Your task to perform on an android device: find snoozed emails in the gmail app Image 0: 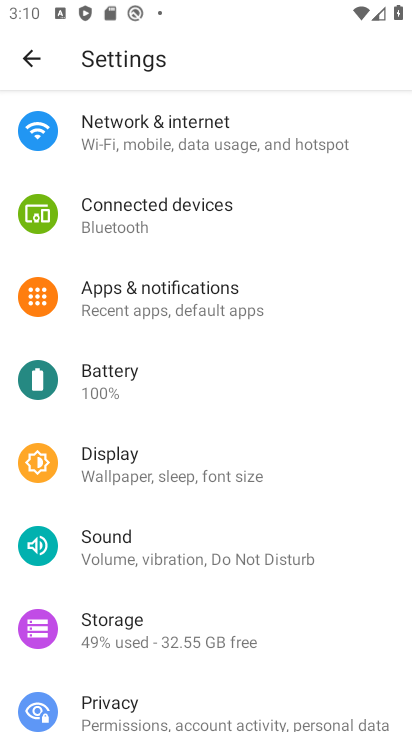
Step 0: press home button
Your task to perform on an android device: find snoozed emails in the gmail app Image 1: 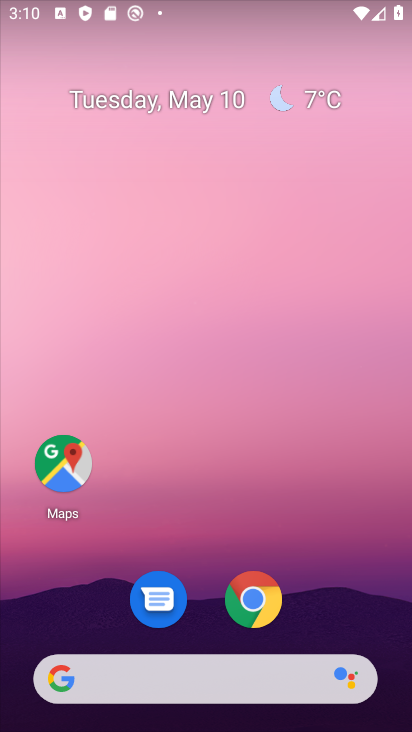
Step 1: drag from (244, 719) to (253, 239)
Your task to perform on an android device: find snoozed emails in the gmail app Image 2: 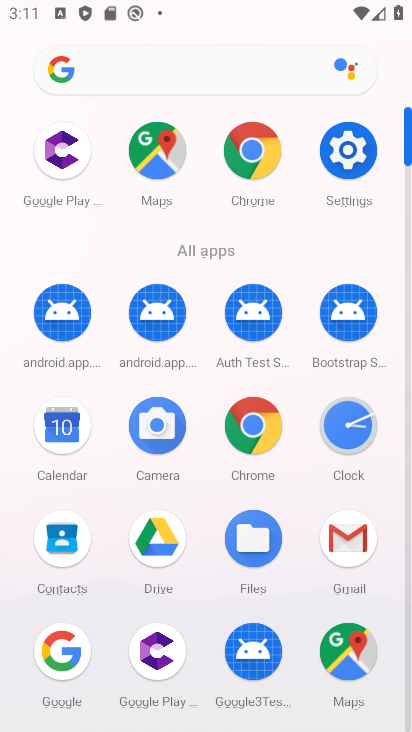
Step 2: drag from (274, 540) to (285, 331)
Your task to perform on an android device: find snoozed emails in the gmail app Image 3: 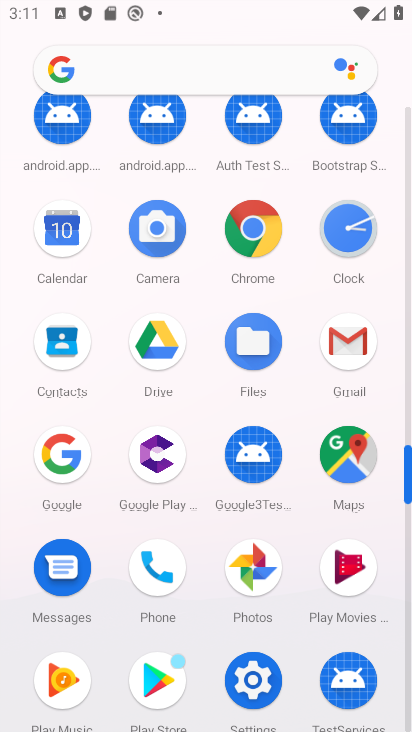
Step 3: click (371, 365)
Your task to perform on an android device: find snoozed emails in the gmail app Image 4: 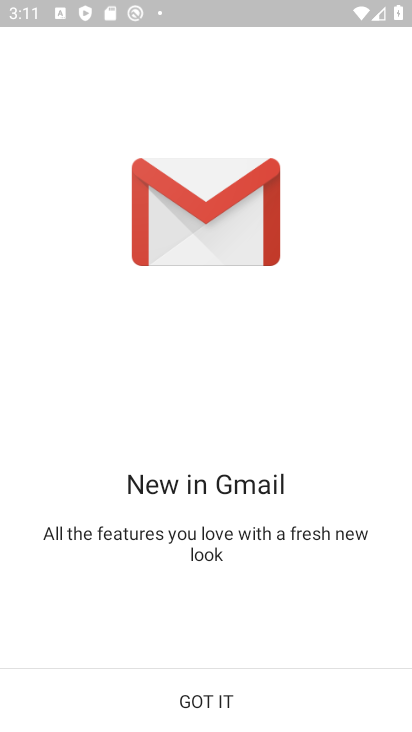
Step 4: click (175, 703)
Your task to perform on an android device: find snoozed emails in the gmail app Image 5: 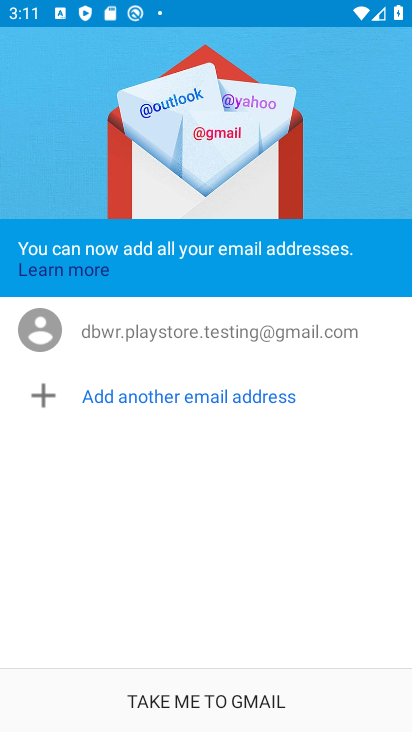
Step 5: click (172, 702)
Your task to perform on an android device: find snoozed emails in the gmail app Image 6: 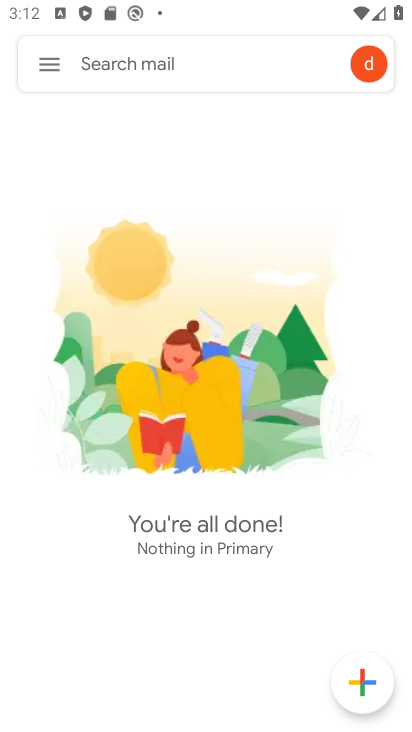
Step 6: click (57, 67)
Your task to perform on an android device: find snoozed emails in the gmail app Image 7: 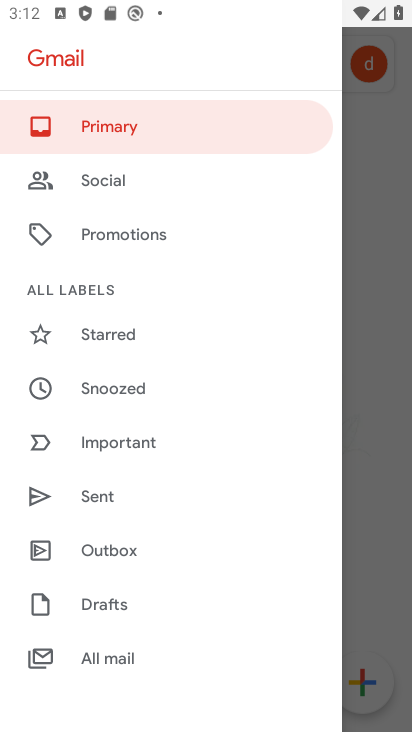
Step 7: click (128, 385)
Your task to perform on an android device: find snoozed emails in the gmail app Image 8: 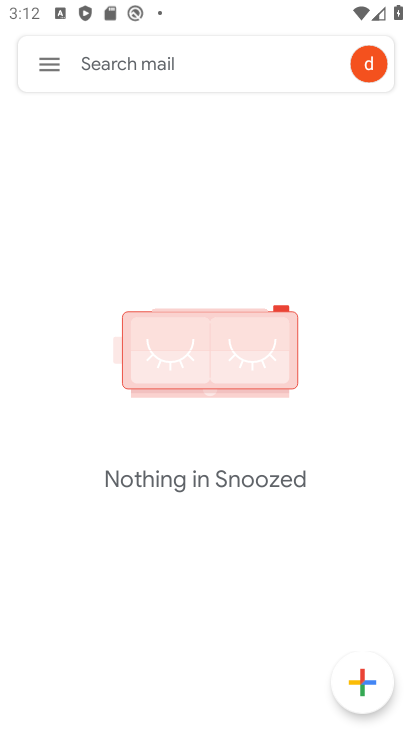
Step 8: task complete